Your task to perform on an android device: change notification settings in the gmail app Image 0: 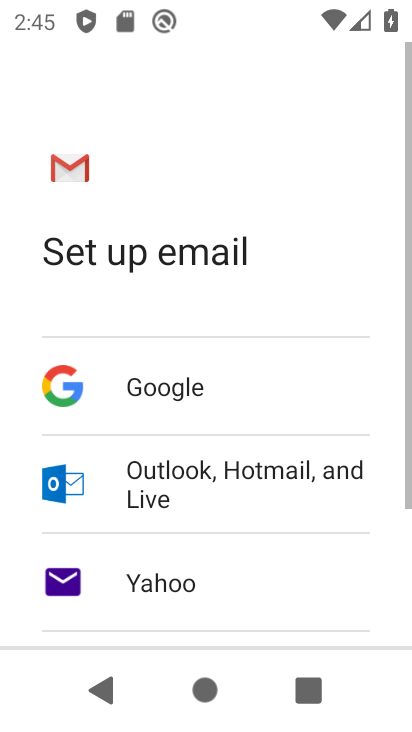
Step 0: press home button
Your task to perform on an android device: change notification settings in the gmail app Image 1: 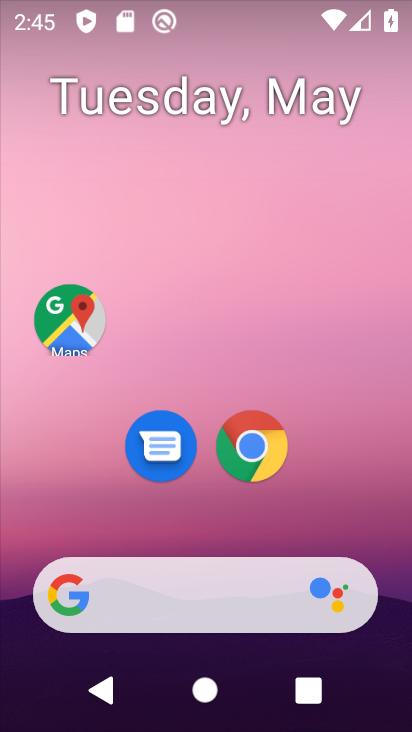
Step 1: drag from (326, 507) to (310, 182)
Your task to perform on an android device: change notification settings in the gmail app Image 2: 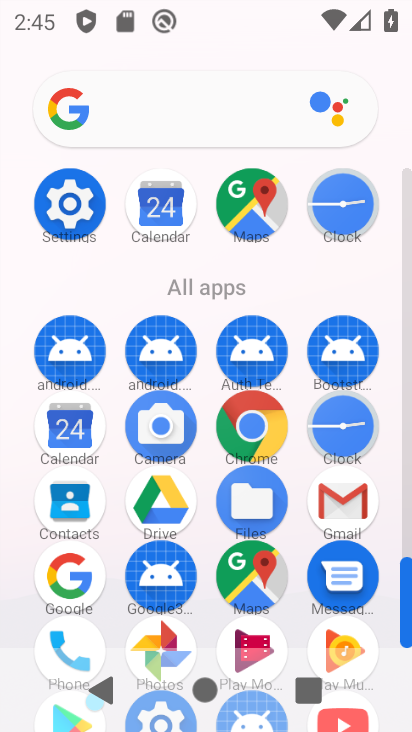
Step 2: click (351, 509)
Your task to perform on an android device: change notification settings in the gmail app Image 3: 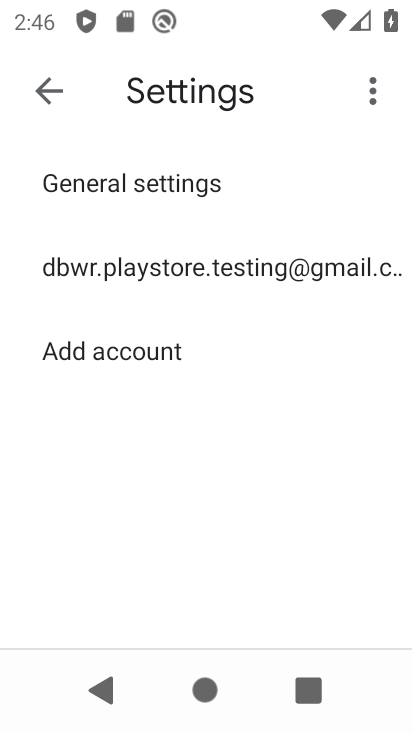
Step 3: click (188, 275)
Your task to perform on an android device: change notification settings in the gmail app Image 4: 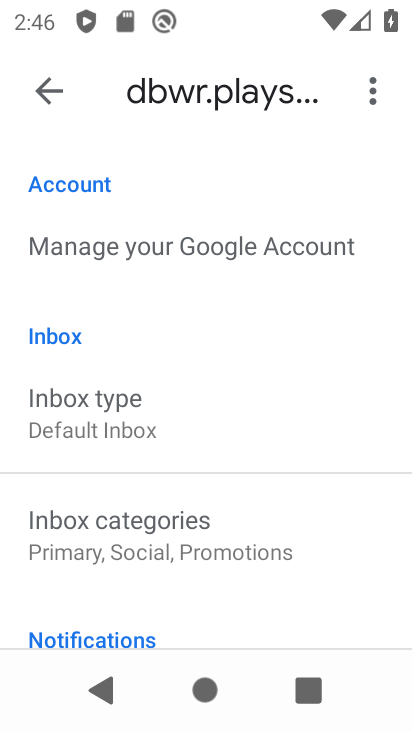
Step 4: drag from (177, 519) to (180, 260)
Your task to perform on an android device: change notification settings in the gmail app Image 5: 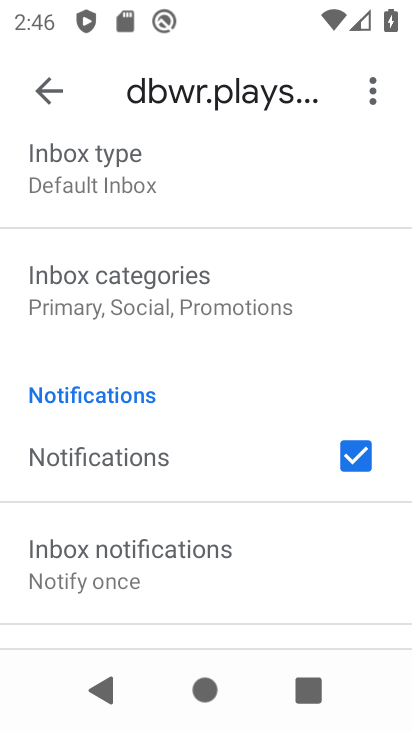
Step 5: click (352, 453)
Your task to perform on an android device: change notification settings in the gmail app Image 6: 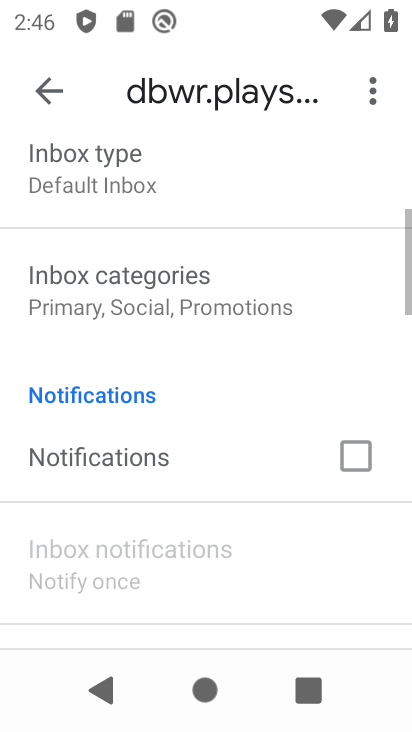
Step 6: drag from (253, 557) to (247, 161)
Your task to perform on an android device: change notification settings in the gmail app Image 7: 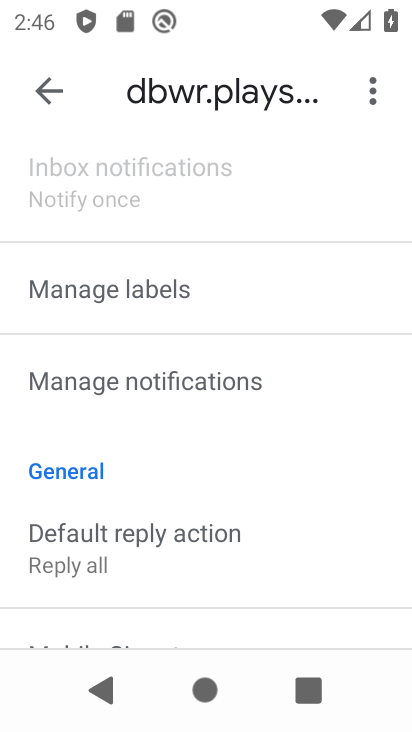
Step 7: click (282, 383)
Your task to perform on an android device: change notification settings in the gmail app Image 8: 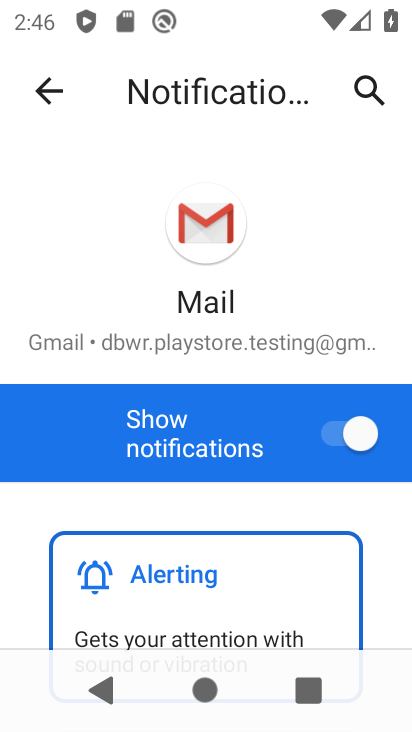
Step 8: click (357, 454)
Your task to perform on an android device: change notification settings in the gmail app Image 9: 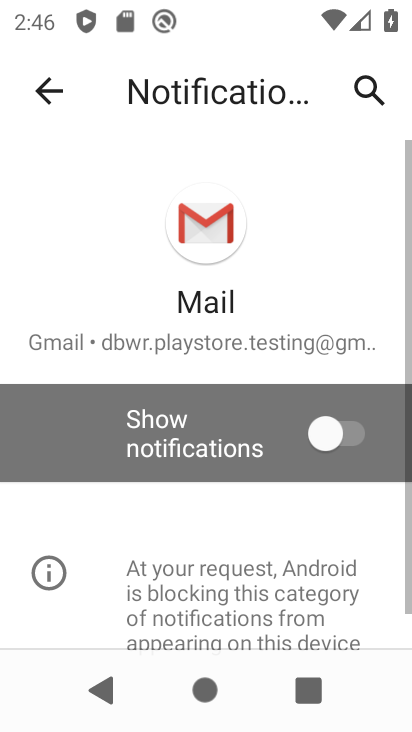
Step 9: task complete